Your task to perform on an android device: toggle improve location accuracy Image 0: 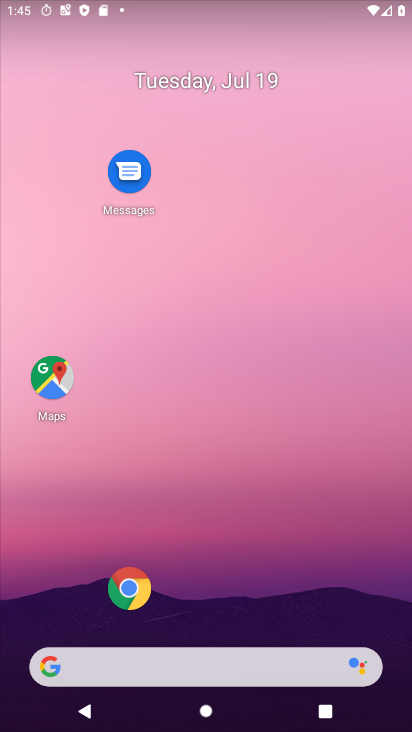
Step 0: drag from (38, 695) to (176, 285)
Your task to perform on an android device: toggle improve location accuracy Image 1: 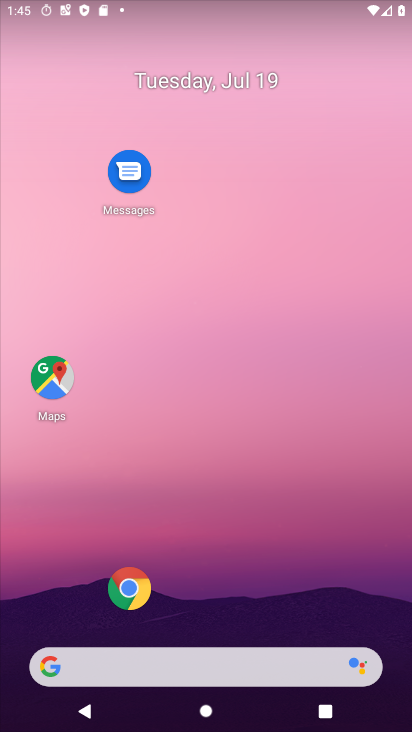
Step 1: drag from (43, 633) to (201, 119)
Your task to perform on an android device: toggle improve location accuracy Image 2: 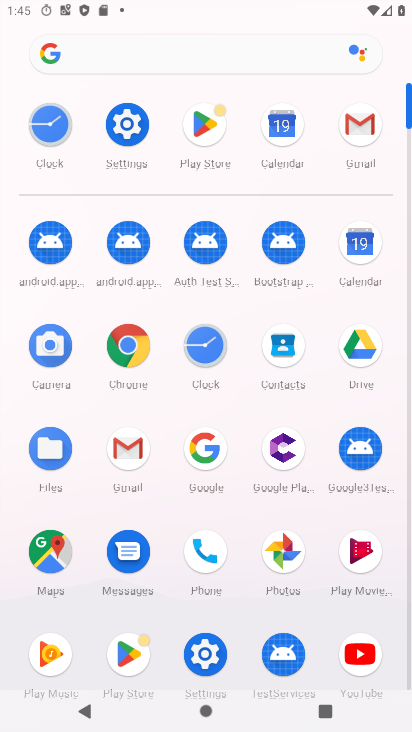
Step 2: click (211, 654)
Your task to perform on an android device: toggle improve location accuracy Image 3: 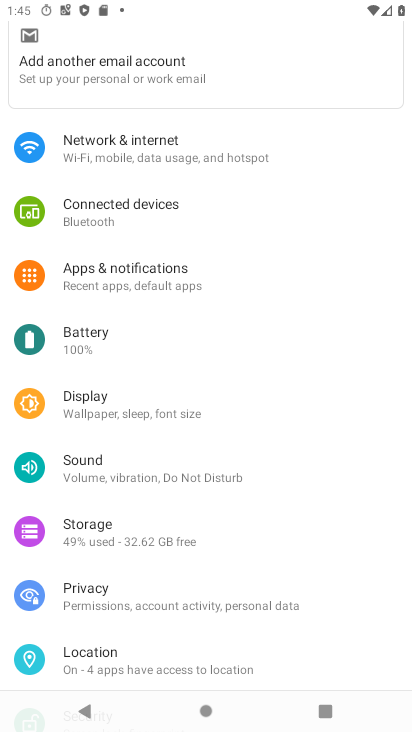
Step 3: click (105, 666)
Your task to perform on an android device: toggle improve location accuracy Image 4: 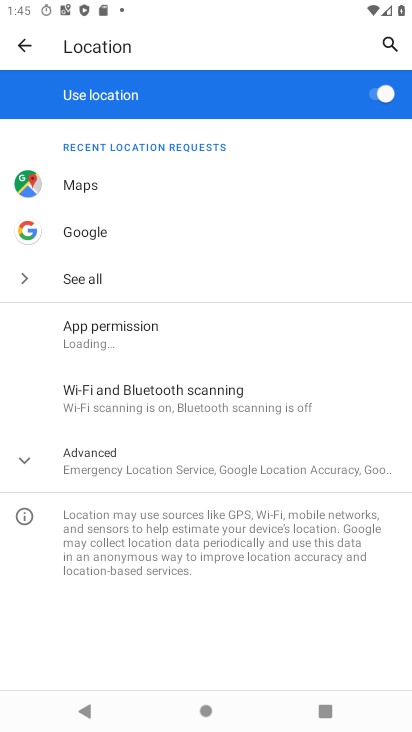
Step 4: click (109, 469)
Your task to perform on an android device: toggle improve location accuracy Image 5: 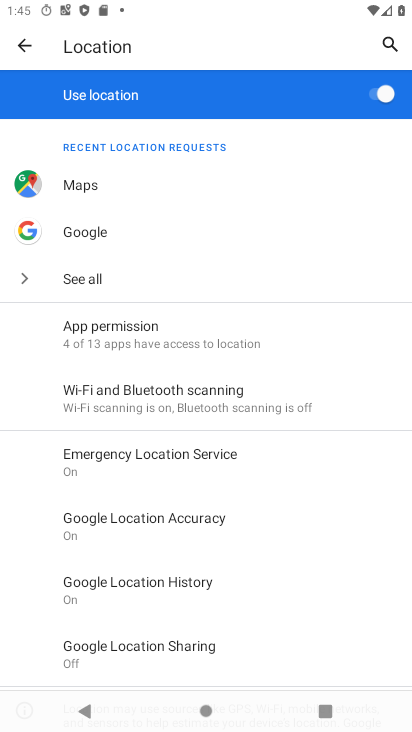
Step 5: task complete